Your task to perform on an android device: add a contact in the contacts app Image 0: 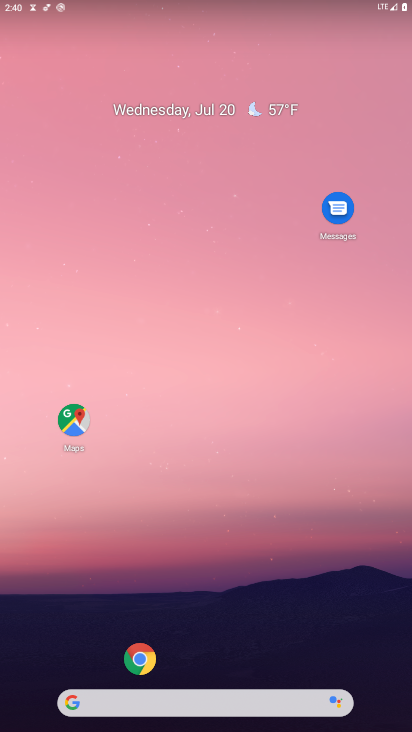
Step 0: drag from (108, 530) to (323, 97)
Your task to perform on an android device: add a contact in the contacts app Image 1: 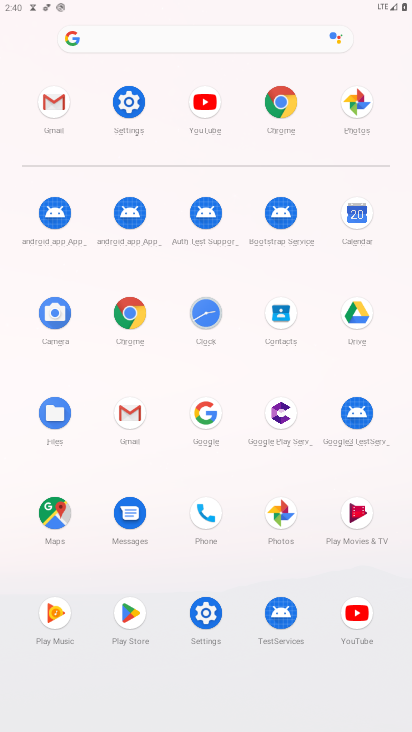
Step 1: click (198, 512)
Your task to perform on an android device: add a contact in the contacts app Image 2: 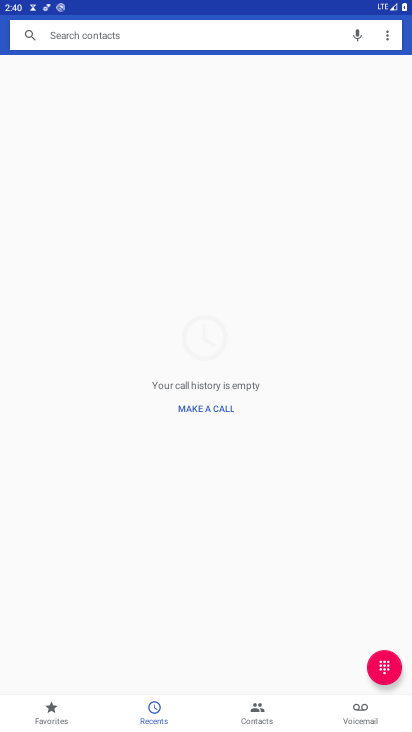
Step 2: click (395, 37)
Your task to perform on an android device: add a contact in the contacts app Image 3: 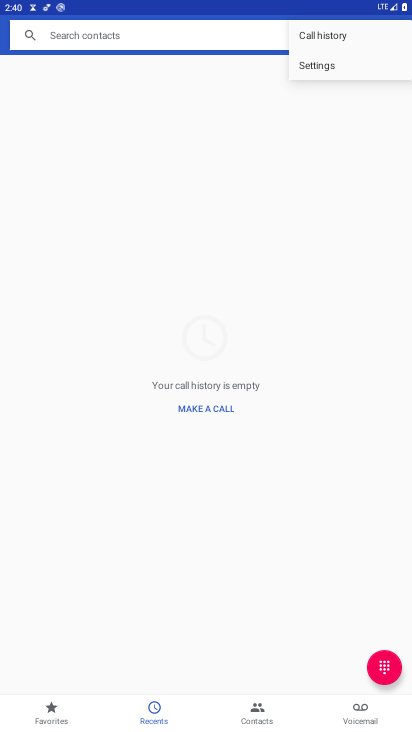
Step 3: click (380, 659)
Your task to perform on an android device: add a contact in the contacts app Image 4: 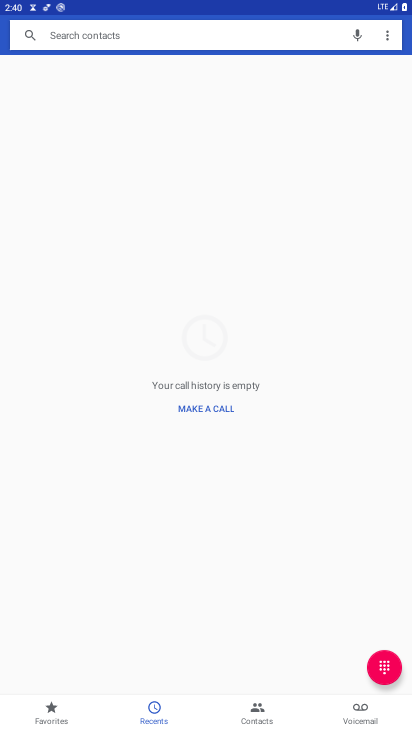
Step 4: click (377, 658)
Your task to perform on an android device: add a contact in the contacts app Image 5: 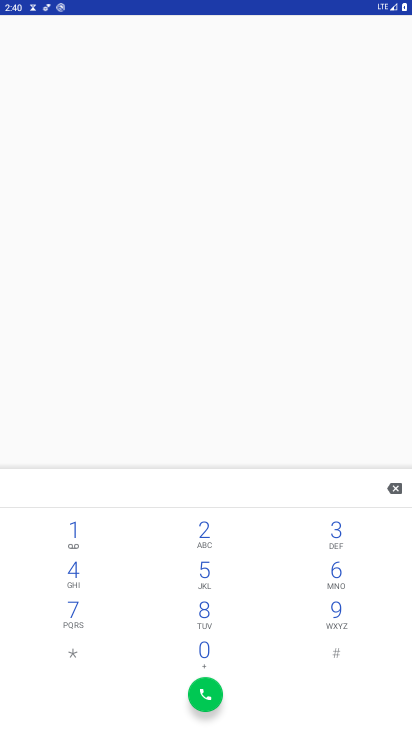
Step 5: task complete